Your task to perform on an android device: set default search engine in the chrome app Image 0: 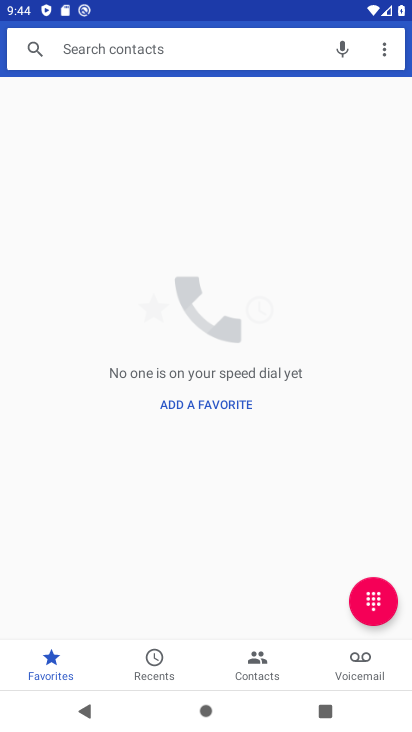
Step 0: press home button
Your task to perform on an android device: set default search engine in the chrome app Image 1: 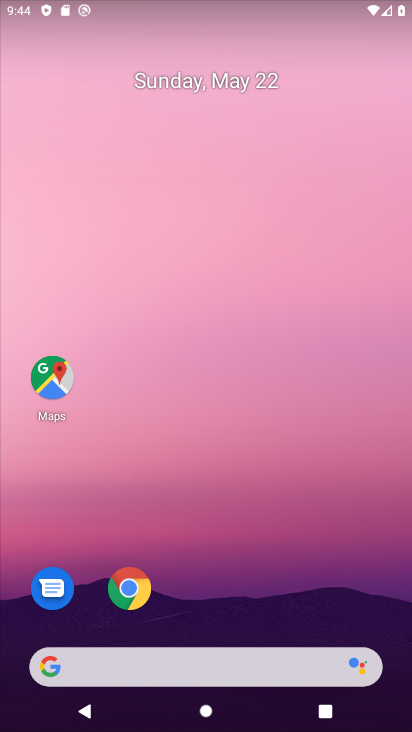
Step 1: click (141, 575)
Your task to perform on an android device: set default search engine in the chrome app Image 2: 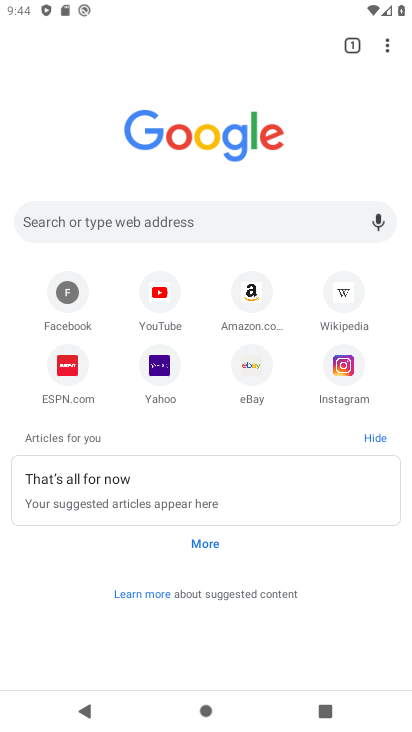
Step 2: click (396, 59)
Your task to perform on an android device: set default search engine in the chrome app Image 3: 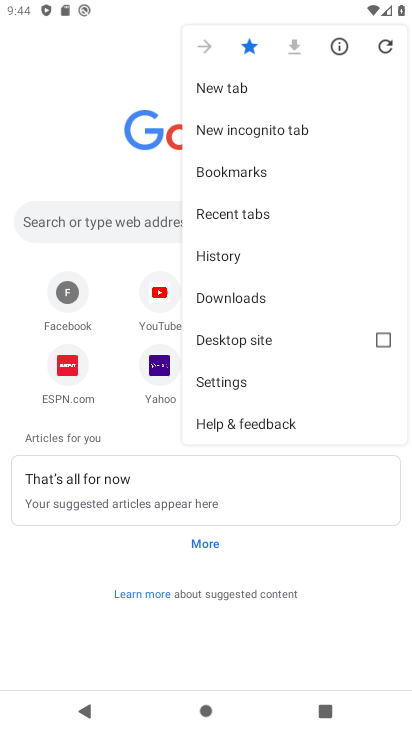
Step 3: click (261, 381)
Your task to perform on an android device: set default search engine in the chrome app Image 4: 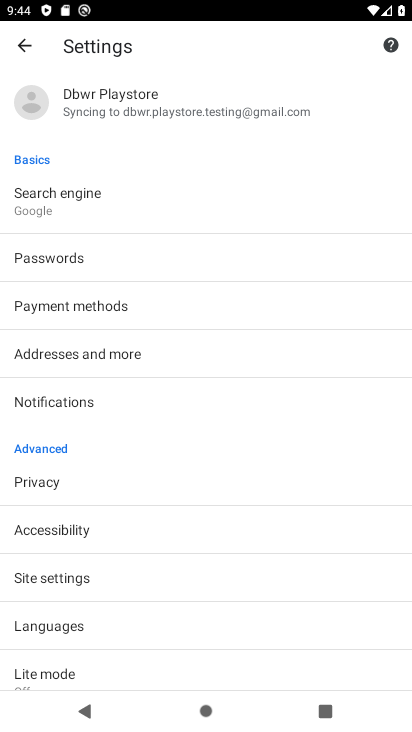
Step 4: click (206, 209)
Your task to perform on an android device: set default search engine in the chrome app Image 5: 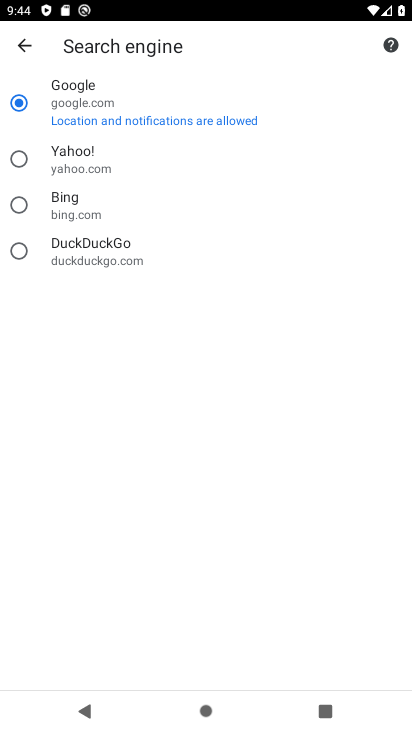
Step 5: click (174, 169)
Your task to perform on an android device: set default search engine in the chrome app Image 6: 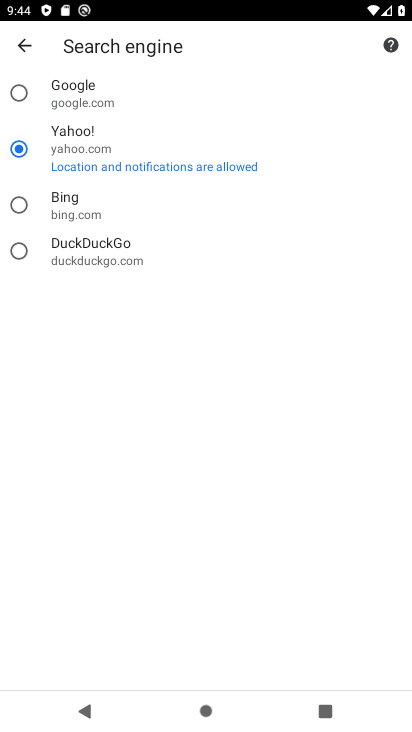
Step 6: task complete